Your task to perform on an android device: Is it going to rain this weekend? Image 0: 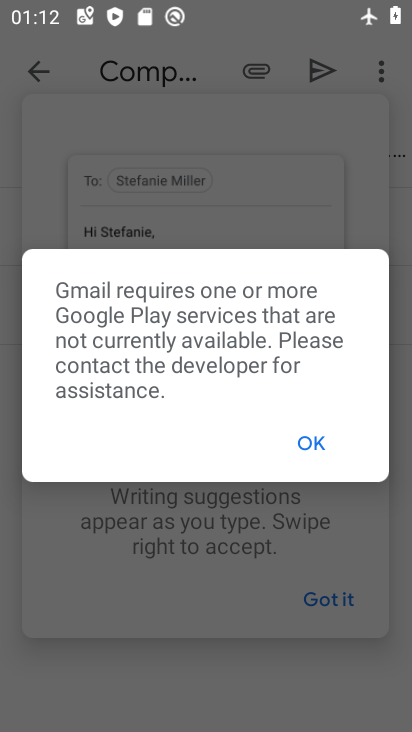
Step 0: press home button
Your task to perform on an android device: Is it going to rain this weekend? Image 1: 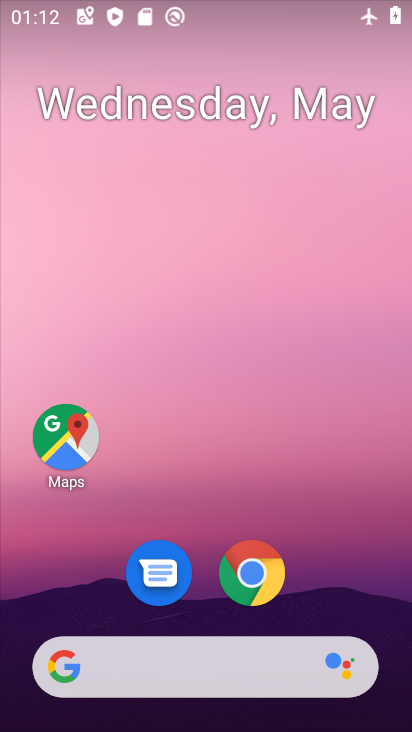
Step 1: click (261, 556)
Your task to perform on an android device: Is it going to rain this weekend? Image 2: 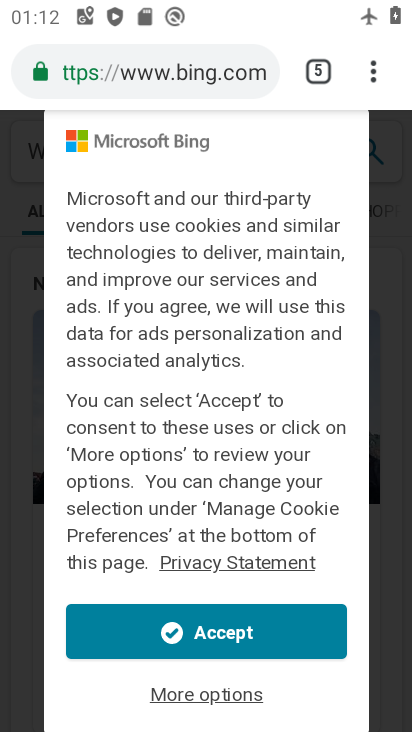
Step 2: click (379, 66)
Your task to perform on an android device: Is it going to rain this weekend? Image 3: 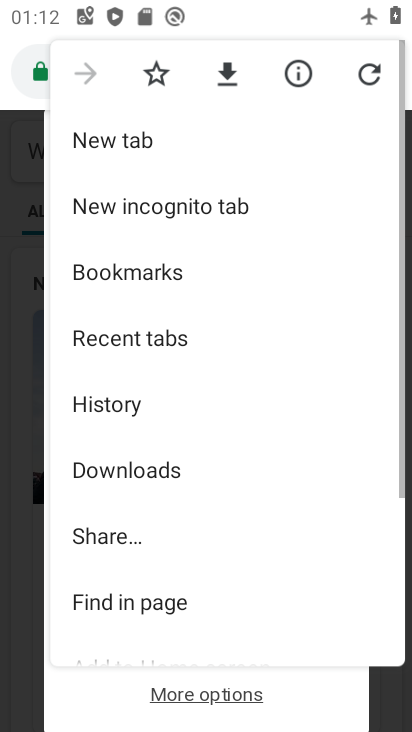
Step 3: click (141, 139)
Your task to perform on an android device: Is it going to rain this weekend? Image 4: 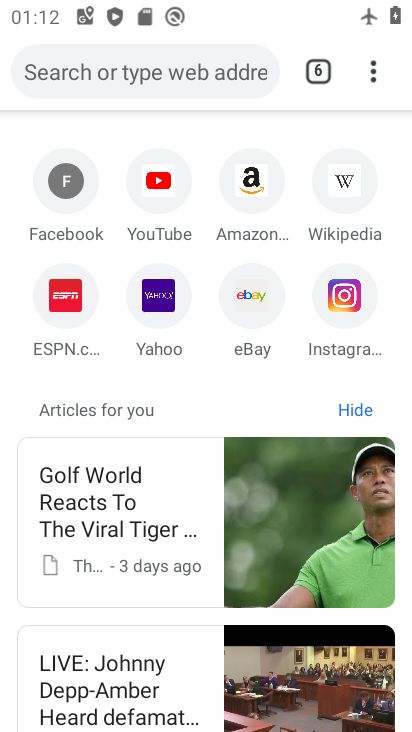
Step 4: drag from (210, 640) to (325, 726)
Your task to perform on an android device: Is it going to rain this weekend? Image 5: 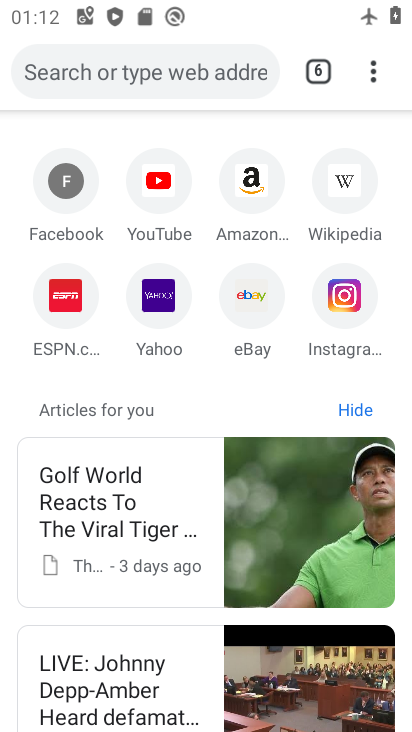
Step 5: click (161, 61)
Your task to perform on an android device: Is it going to rain this weekend? Image 6: 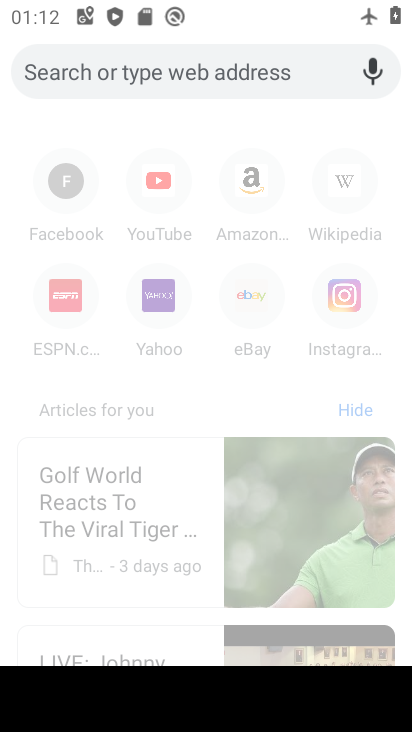
Step 6: type "Is it going to rain this weekend?"
Your task to perform on an android device: Is it going to rain this weekend? Image 7: 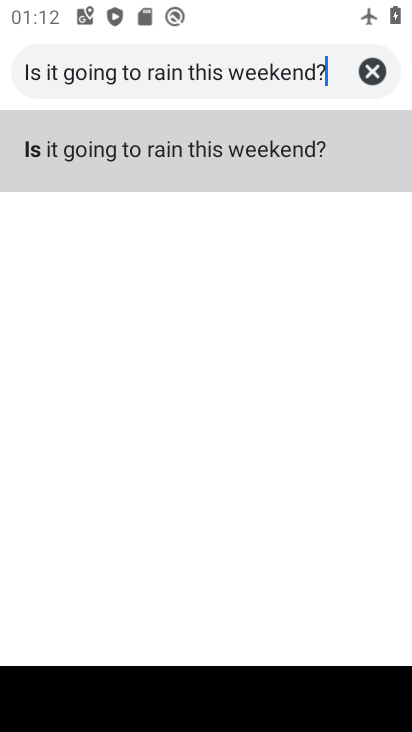
Step 7: click (223, 146)
Your task to perform on an android device: Is it going to rain this weekend? Image 8: 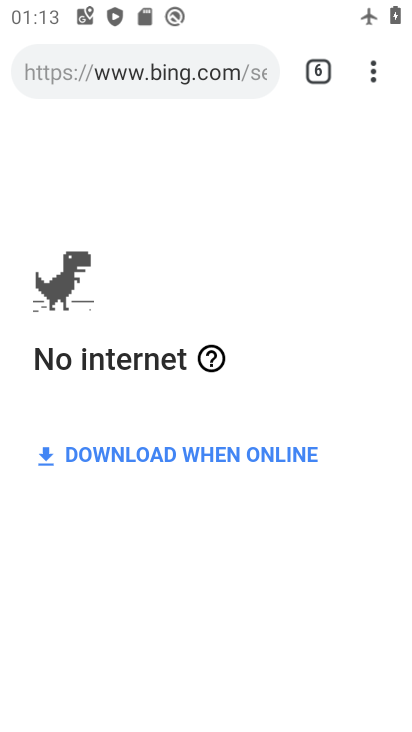
Step 8: task complete